Your task to perform on an android device: toggle pop-ups in chrome Image 0: 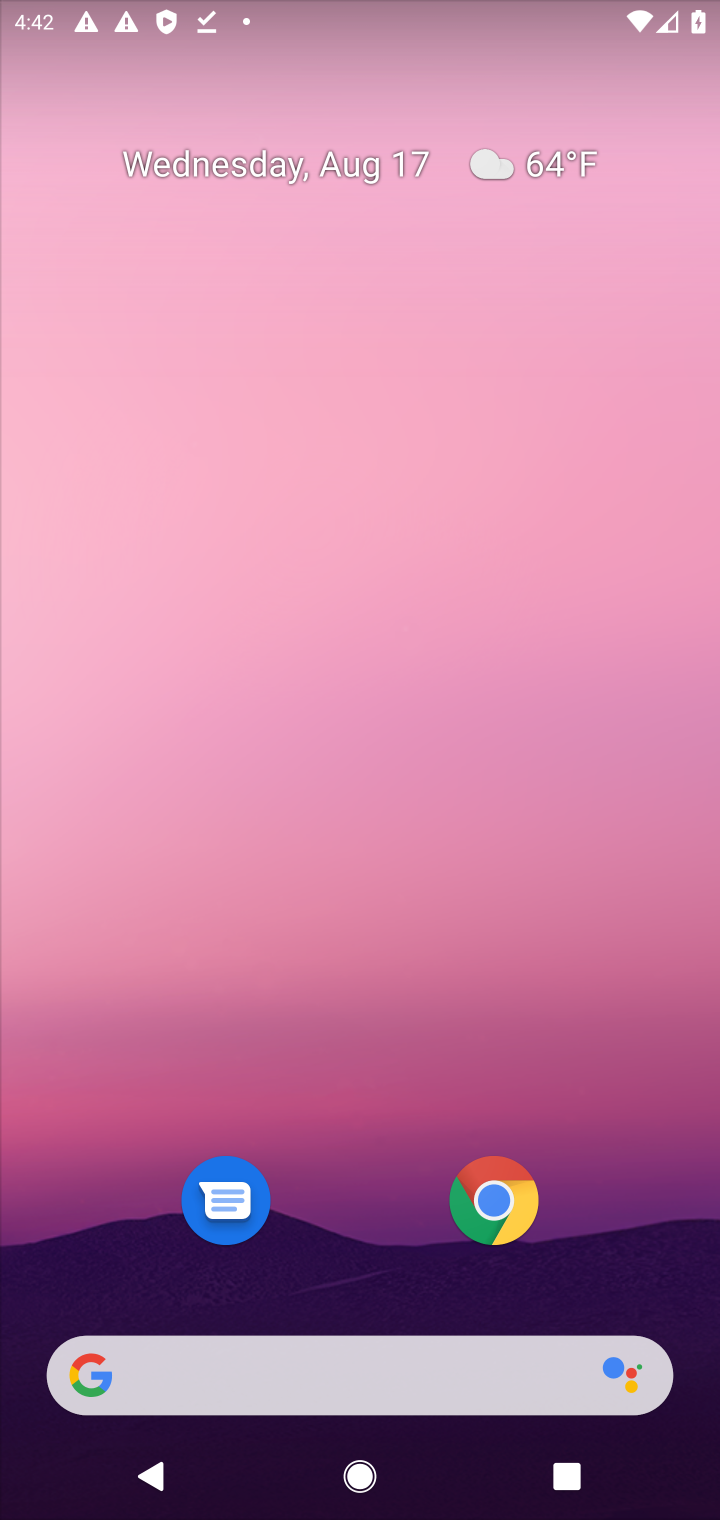
Step 0: drag from (360, 1195) to (360, 169)
Your task to perform on an android device: toggle pop-ups in chrome Image 1: 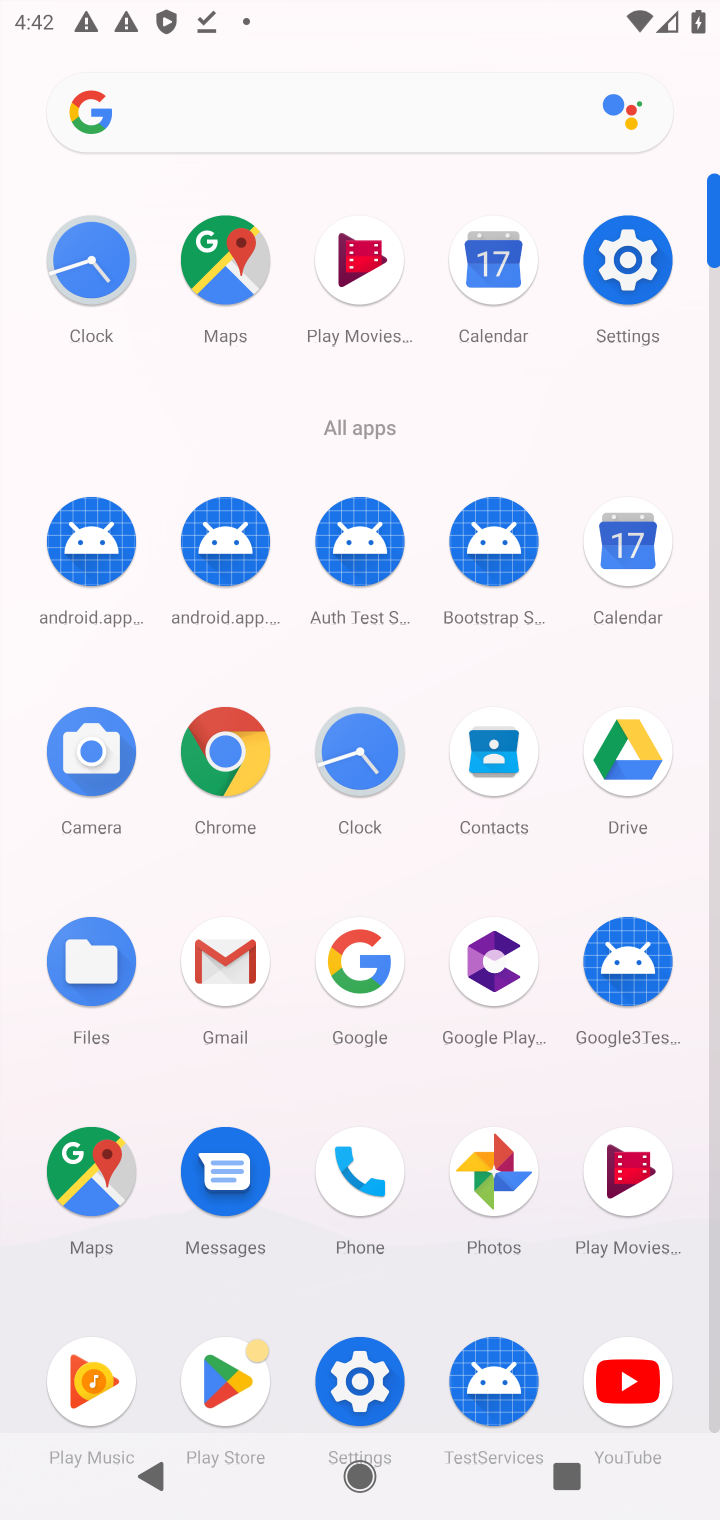
Step 1: click (226, 740)
Your task to perform on an android device: toggle pop-ups in chrome Image 2: 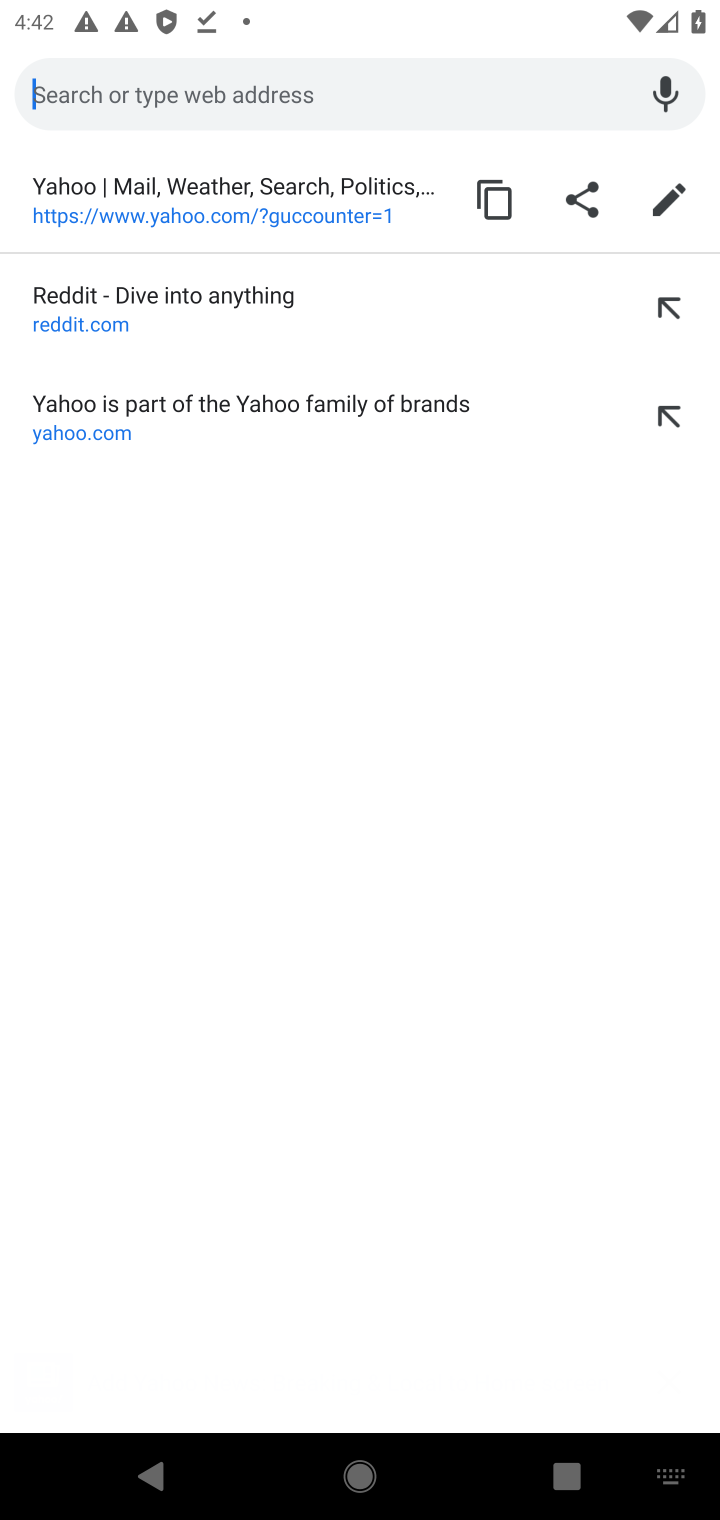
Step 2: click (283, 897)
Your task to perform on an android device: toggle pop-ups in chrome Image 3: 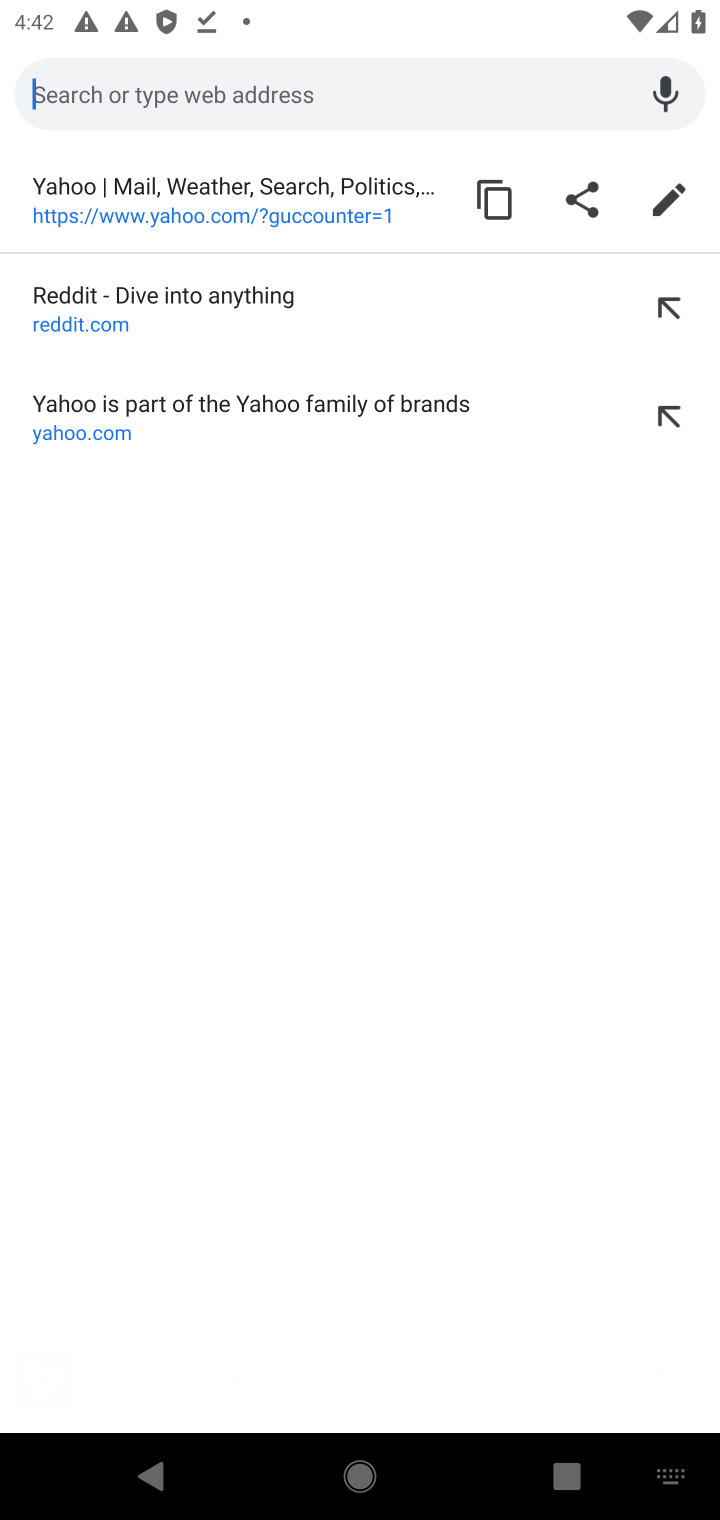
Step 3: click (329, 502)
Your task to perform on an android device: toggle pop-ups in chrome Image 4: 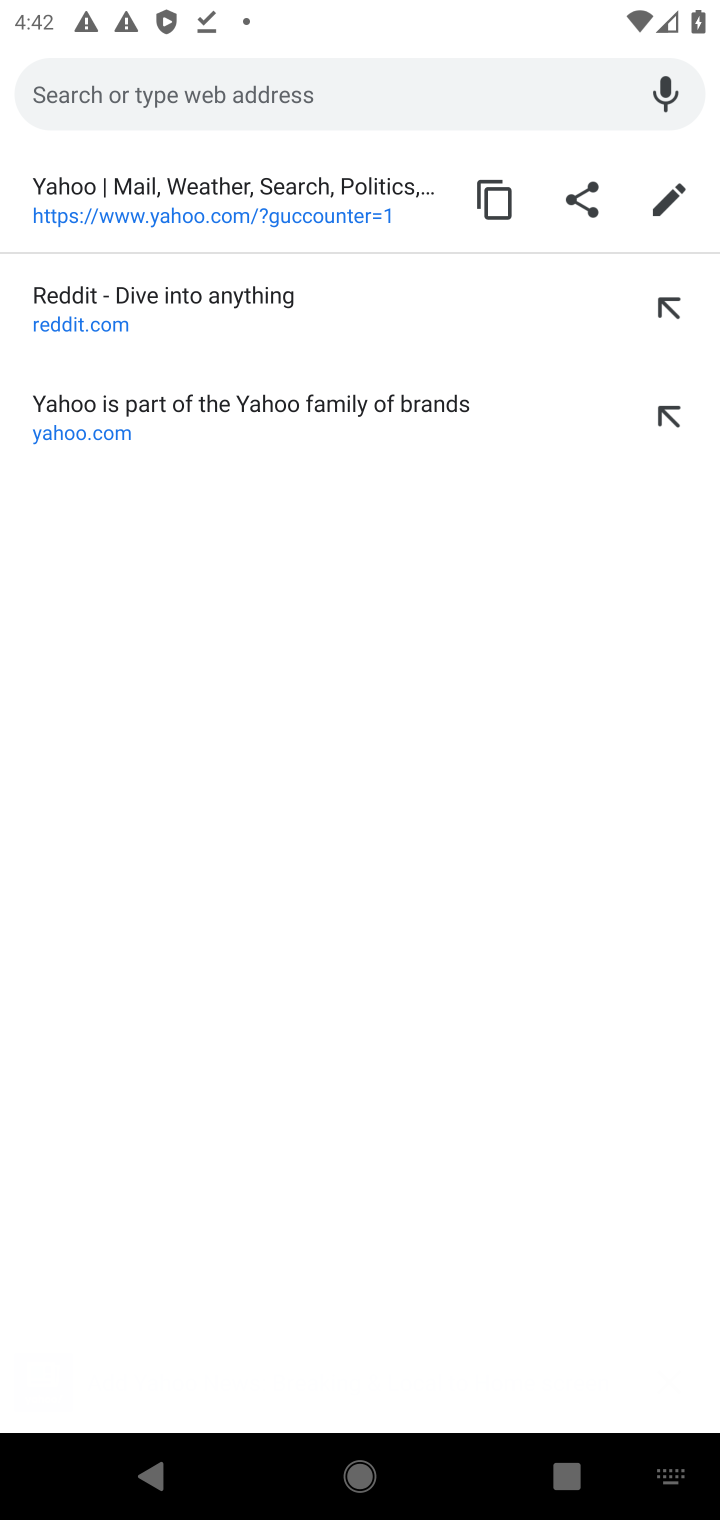
Step 4: press back button
Your task to perform on an android device: toggle pop-ups in chrome Image 5: 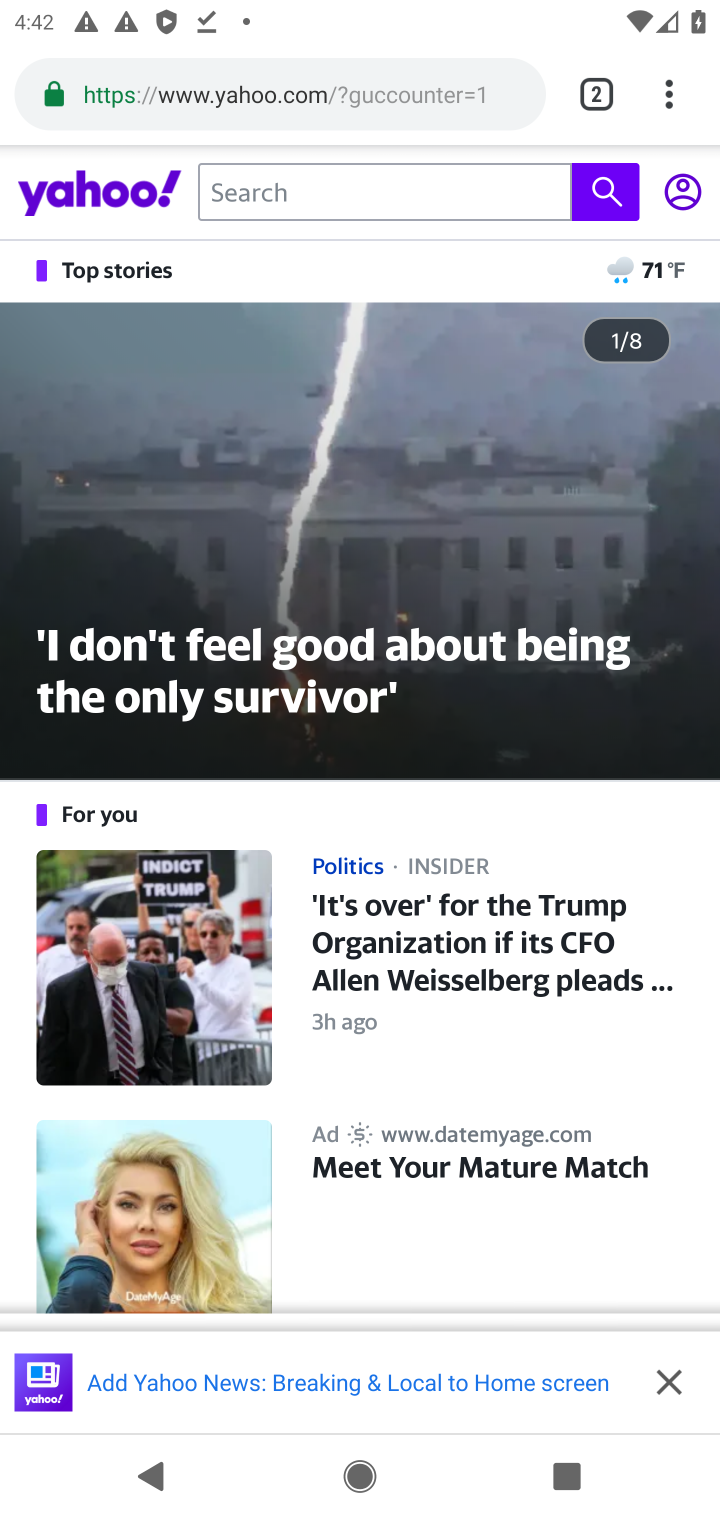
Step 5: drag from (668, 100) to (321, 1149)
Your task to perform on an android device: toggle pop-ups in chrome Image 6: 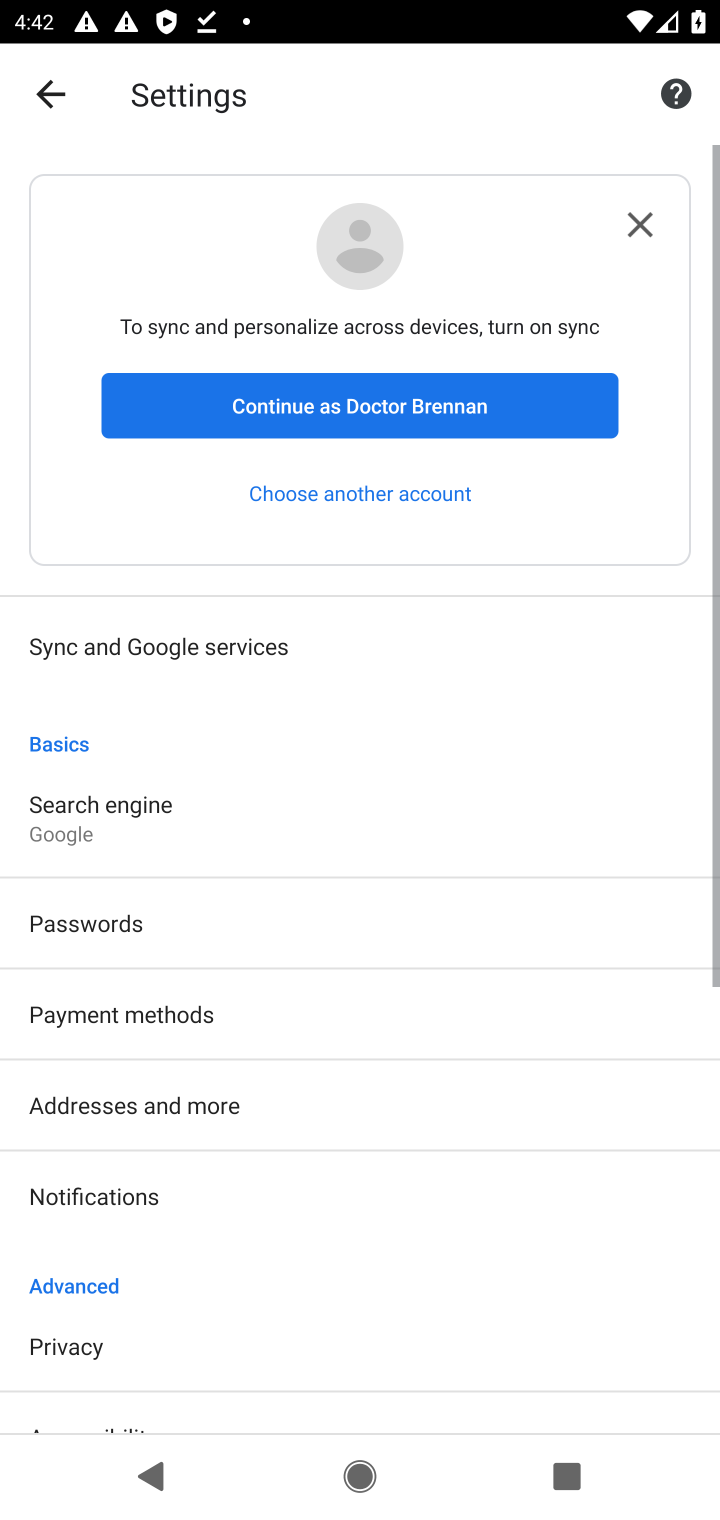
Step 6: drag from (153, 1283) to (153, 619)
Your task to perform on an android device: toggle pop-ups in chrome Image 7: 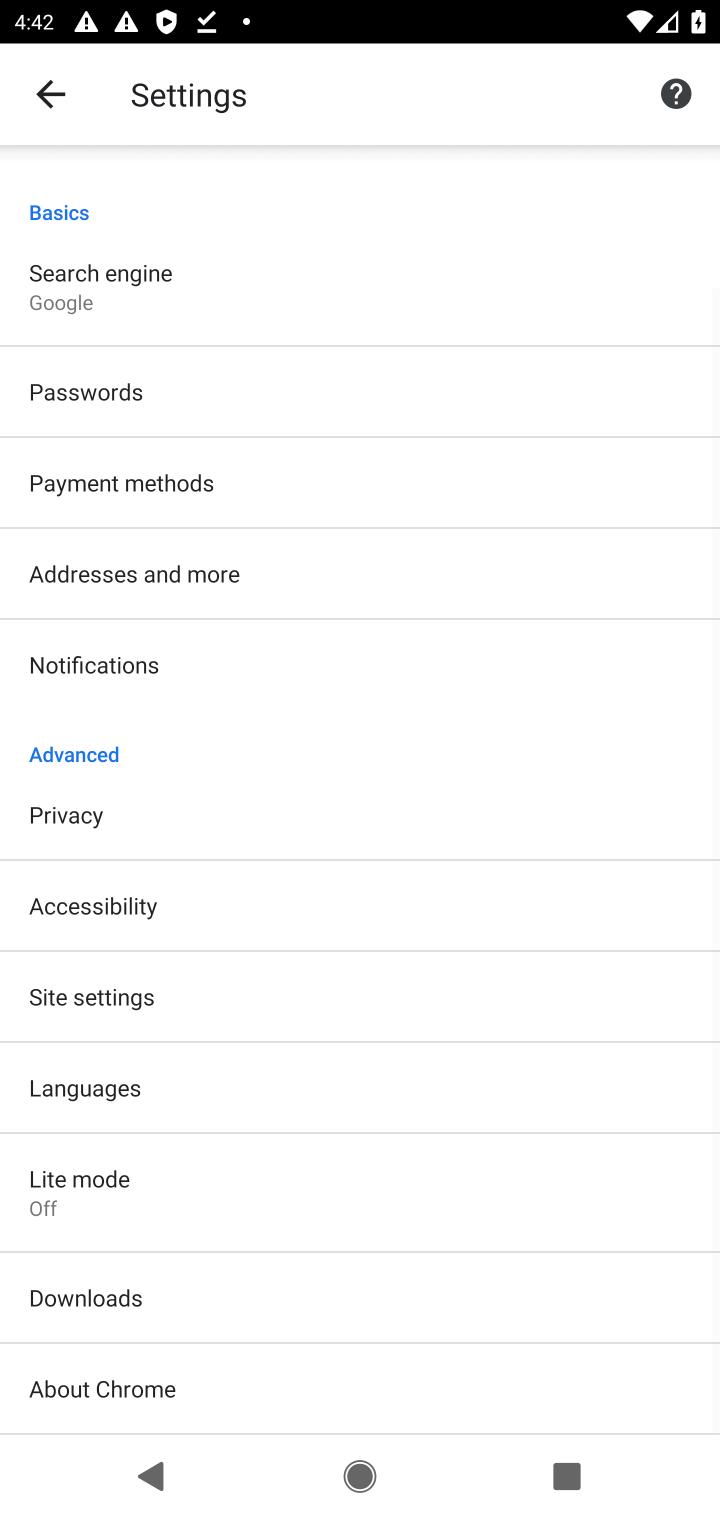
Step 7: click (104, 988)
Your task to perform on an android device: toggle pop-ups in chrome Image 8: 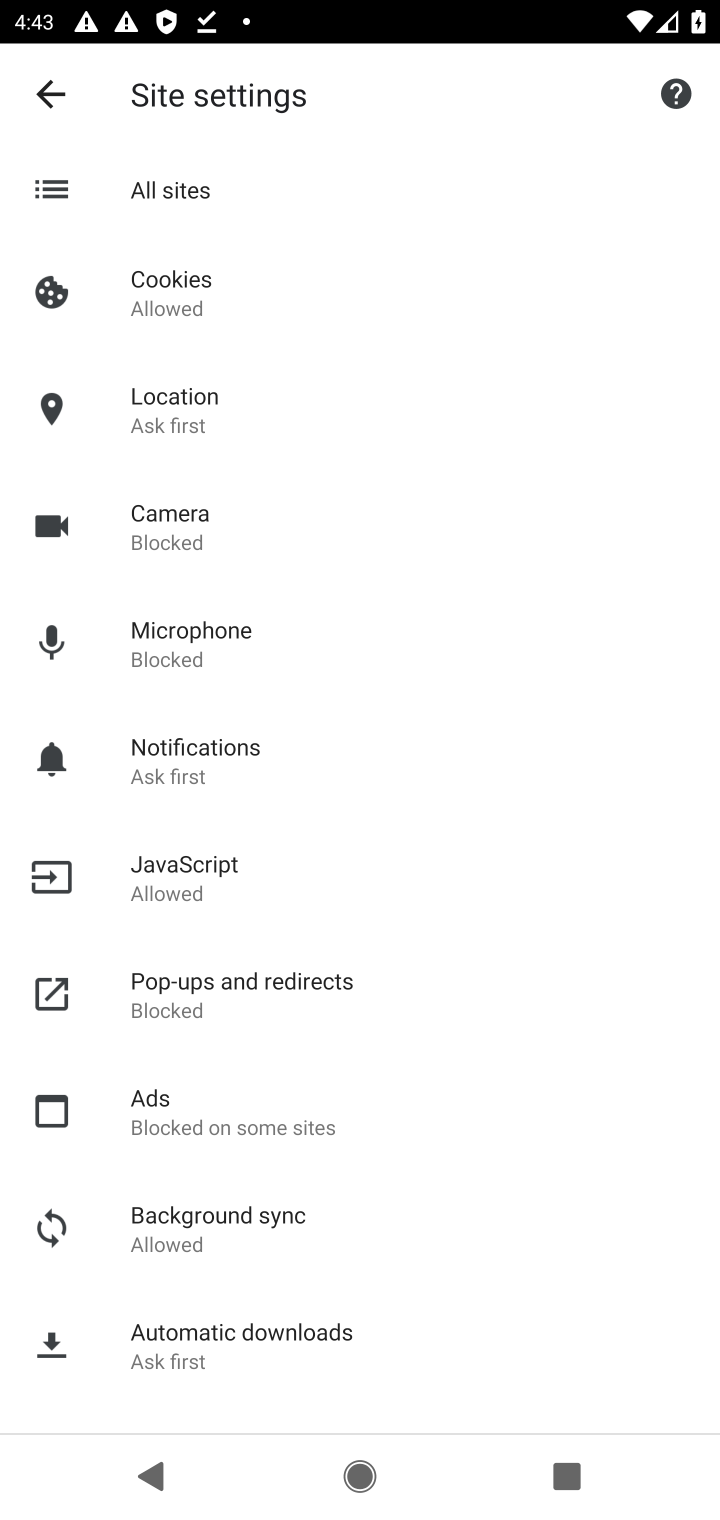
Step 8: click (153, 995)
Your task to perform on an android device: toggle pop-ups in chrome Image 9: 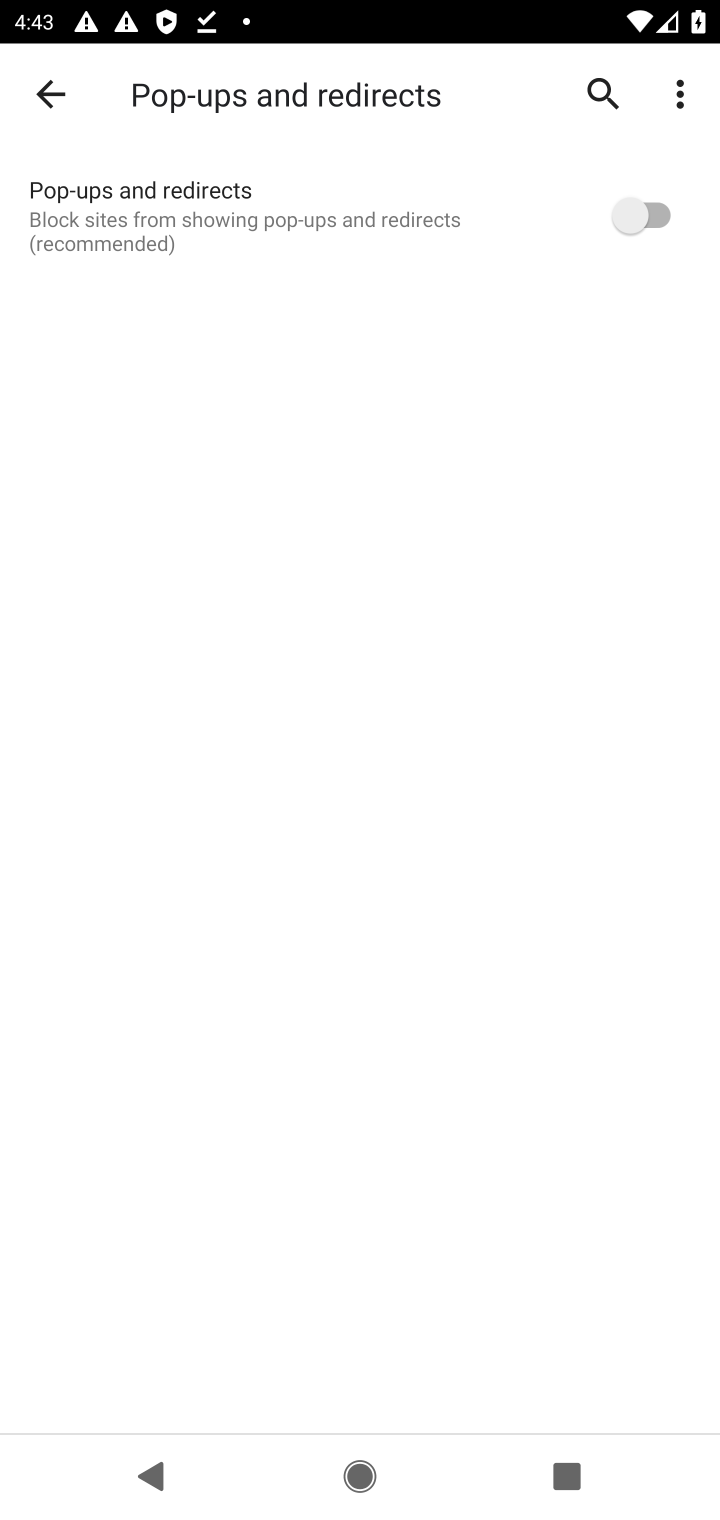
Step 9: click (651, 211)
Your task to perform on an android device: toggle pop-ups in chrome Image 10: 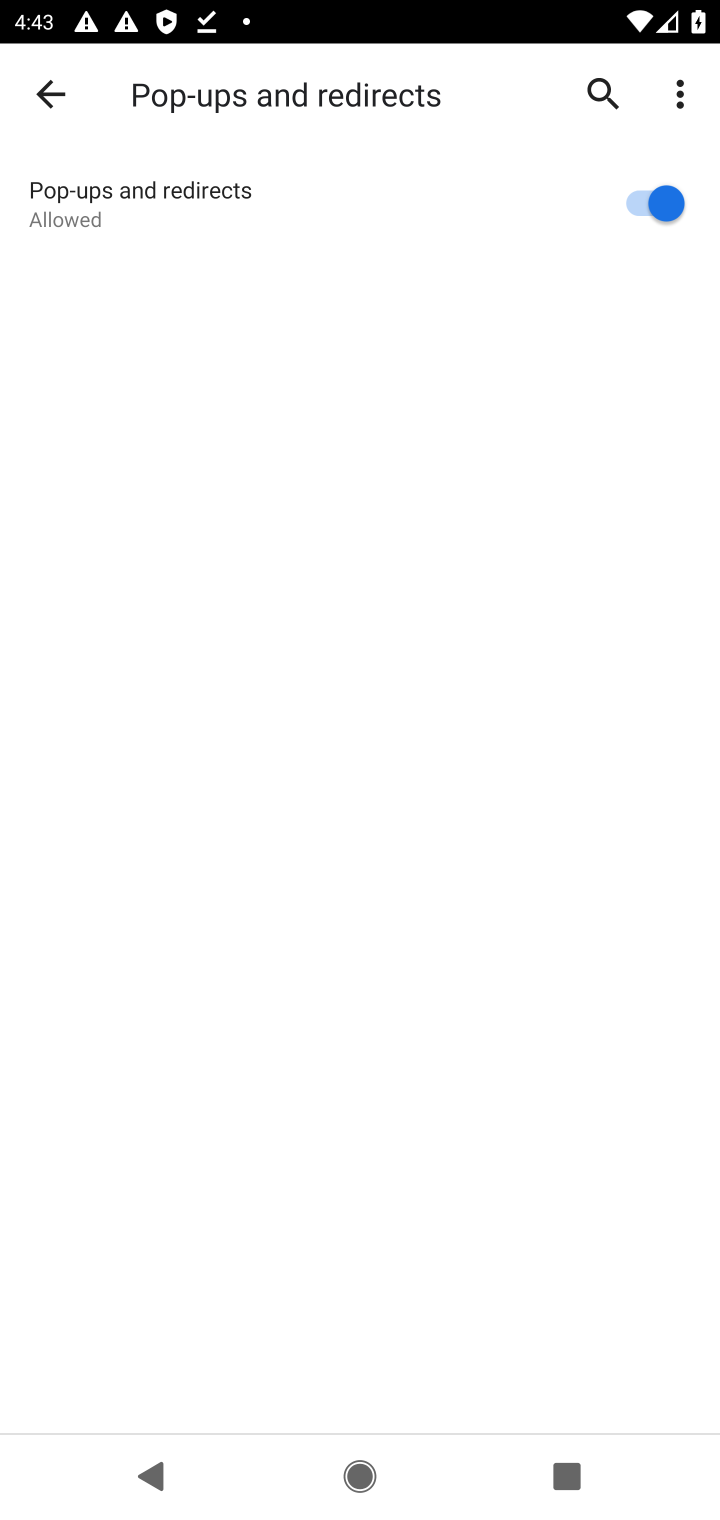
Step 10: task complete